Your task to perform on an android device: set the timer Image 0: 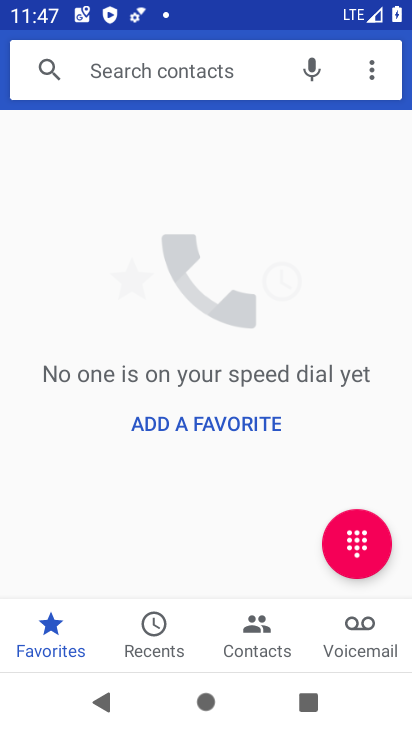
Step 0: press home button
Your task to perform on an android device: set the timer Image 1: 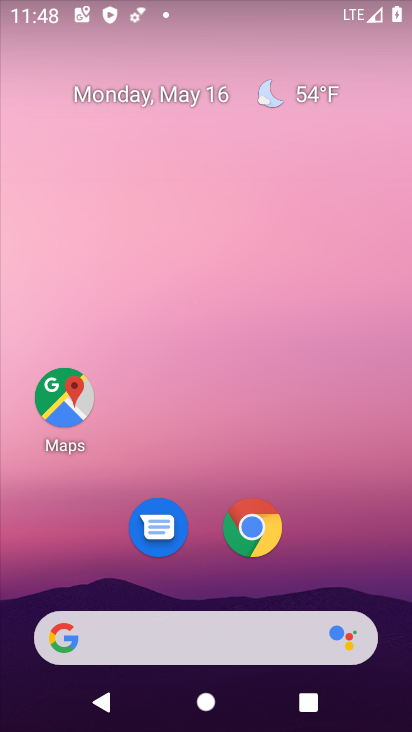
Step 1: drag from (307, 683) to (280, 249)
Your task to perform on an android device: set the timer Image 2: 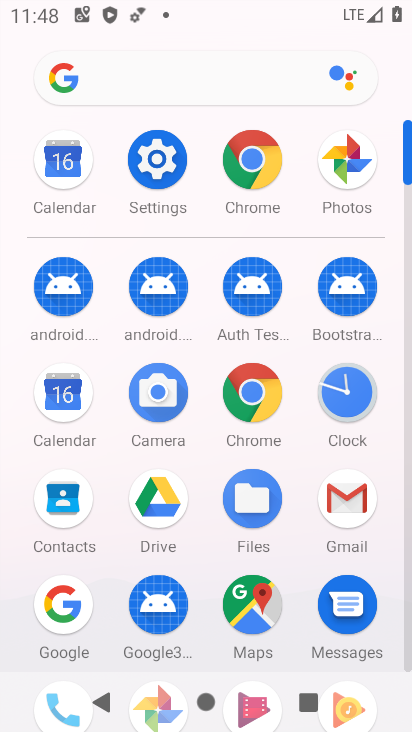
Step 2: click (344, 393)
Your task to perform on an android device: set the timer Image 3: 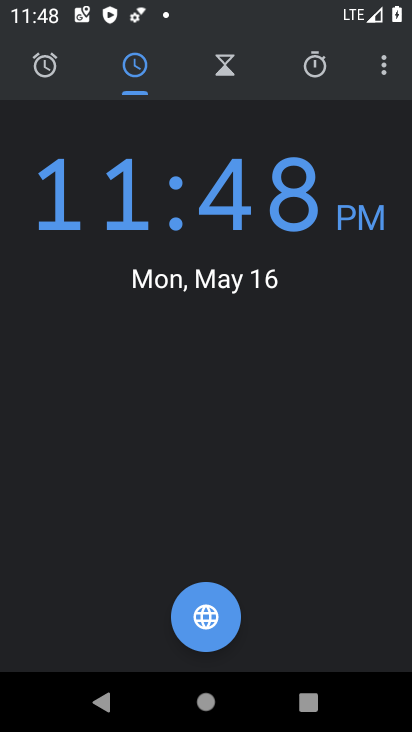
Step 3: click (393, 87)
Your task to perform on an android device: set the timer Image 4: 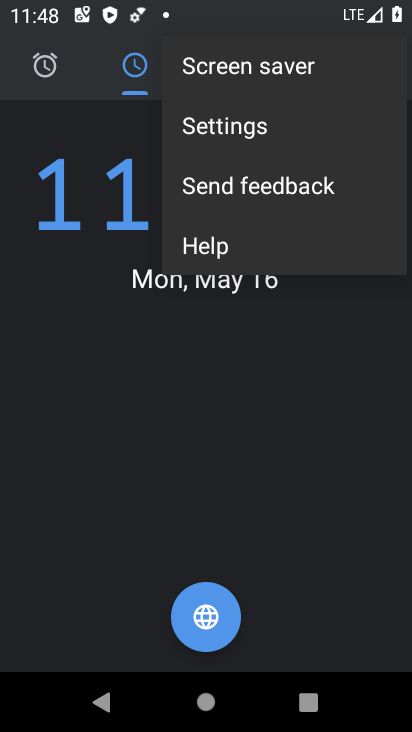
Step 4: click (256, 144)
Your task to perform on an android device: set the timer Image 5: 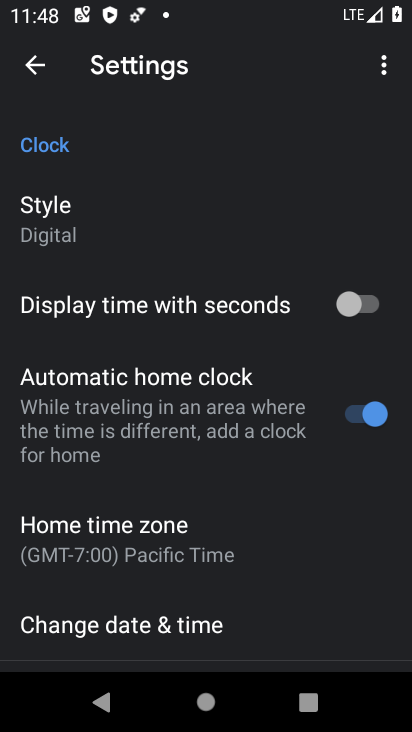
Step 5: click (42, 80)
Your task to perform on an android device: set the timer Image 6: 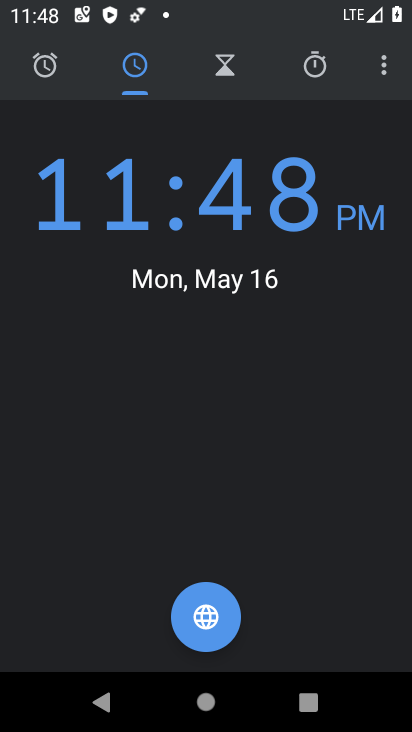
Step 6: click (232, 72)
Your task to perform on an android device: set the timer Image 7: 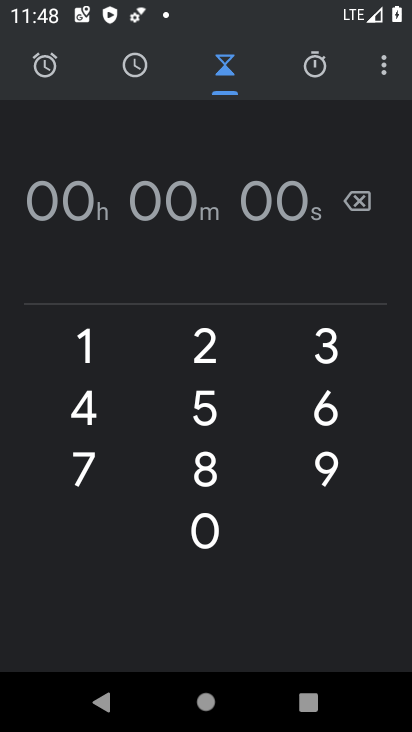
Step 7: click (211, 364)
Your task to perform on an android device: set the timer Image 8: 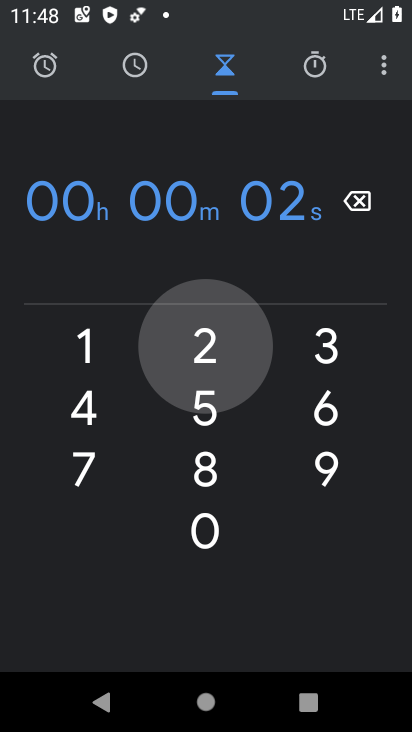
Step 8: click (193, 433)
Your task to perform on an android device: set the timer Image 9: 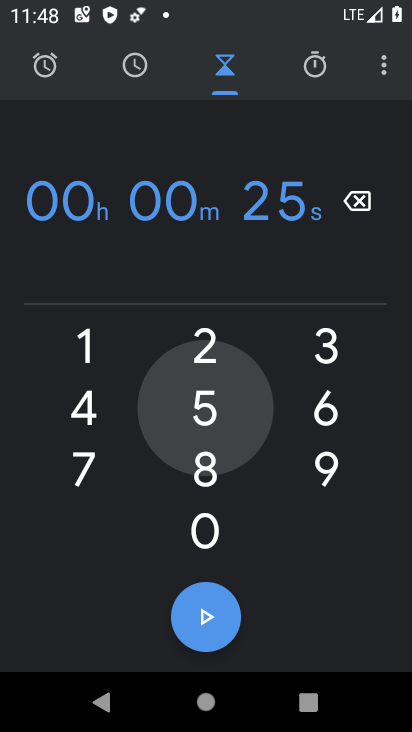
Step 9: click (120, 419)
Your task to perform on an android device: set the timer Image 10: 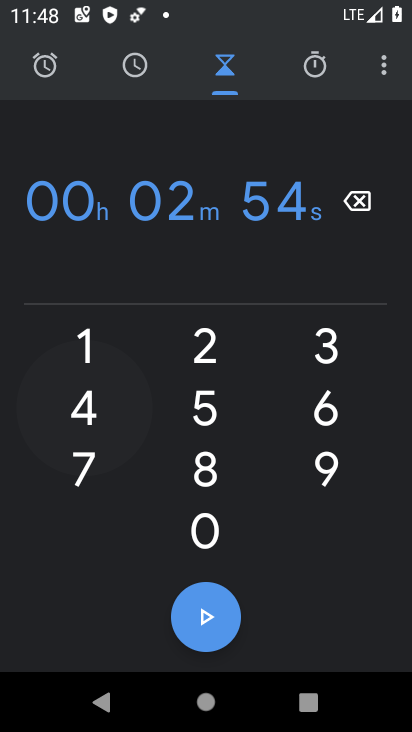
Step 10: click (234, 466)
Your task to perform on an android device: set the timer Image 11: 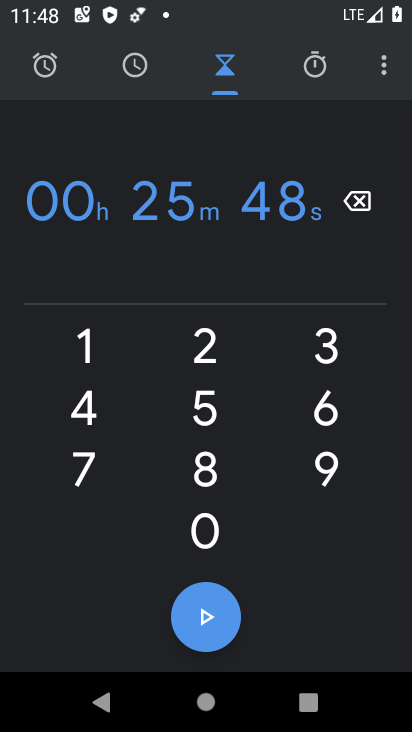
Step 11: click (223, 360)
Your task to perform on an android device: set the timer Image 12: 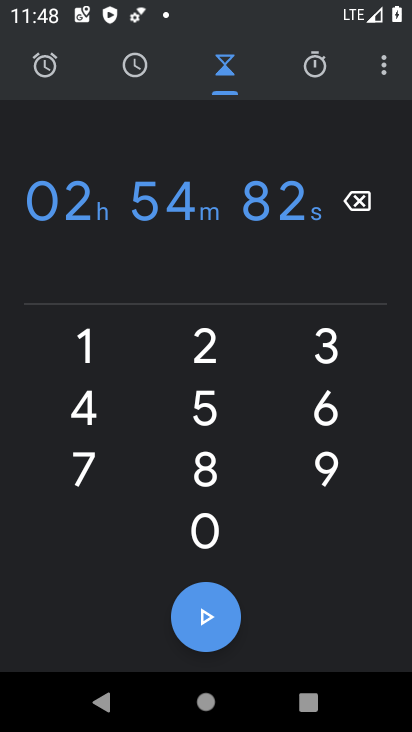
Step 12: task complete